Your task to perform on an android device: Add amazon basics triple a to the cart on target, then select checkout. Image 0: 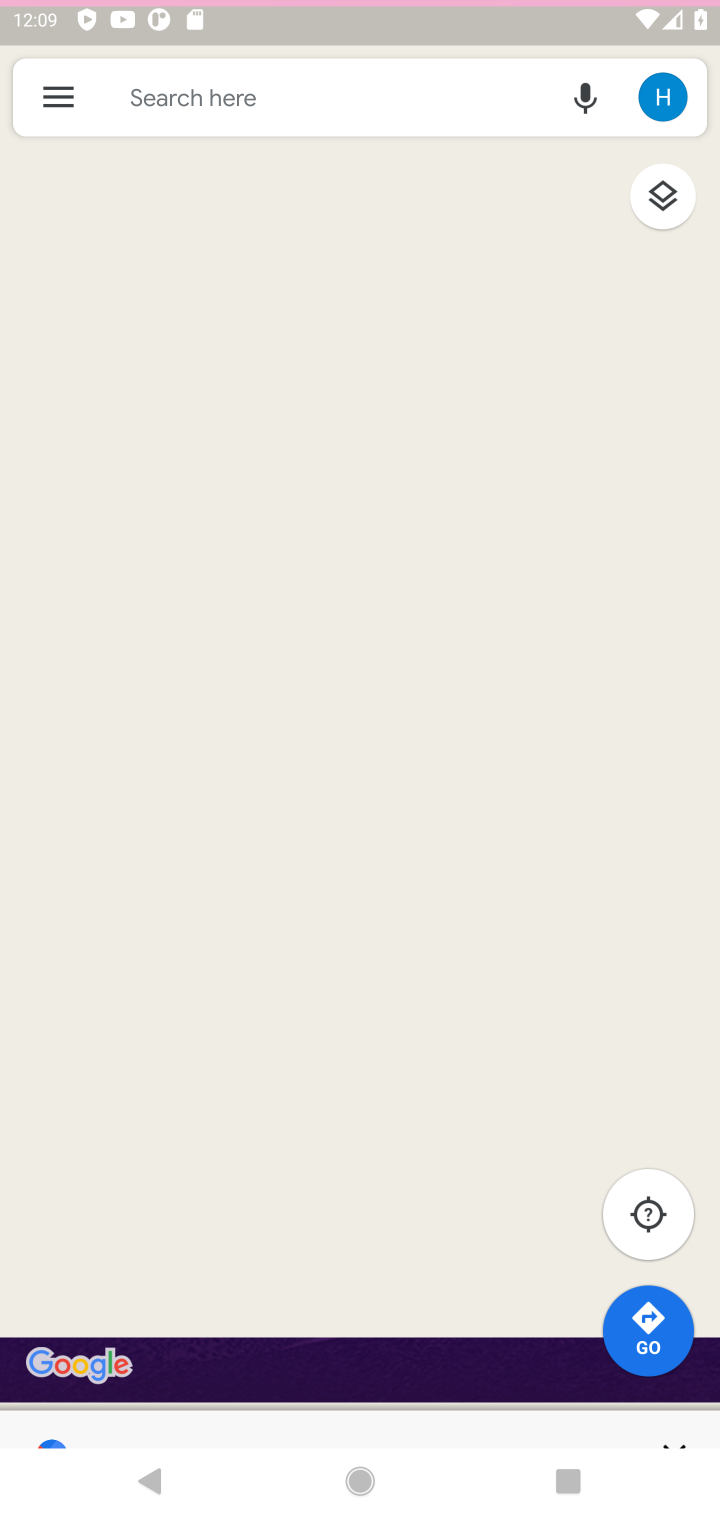
Step 0: click (509, 1220)
Your task to perform on an android device: Add amazon basics triple a to the cart on target, then select checkout. Image 1: 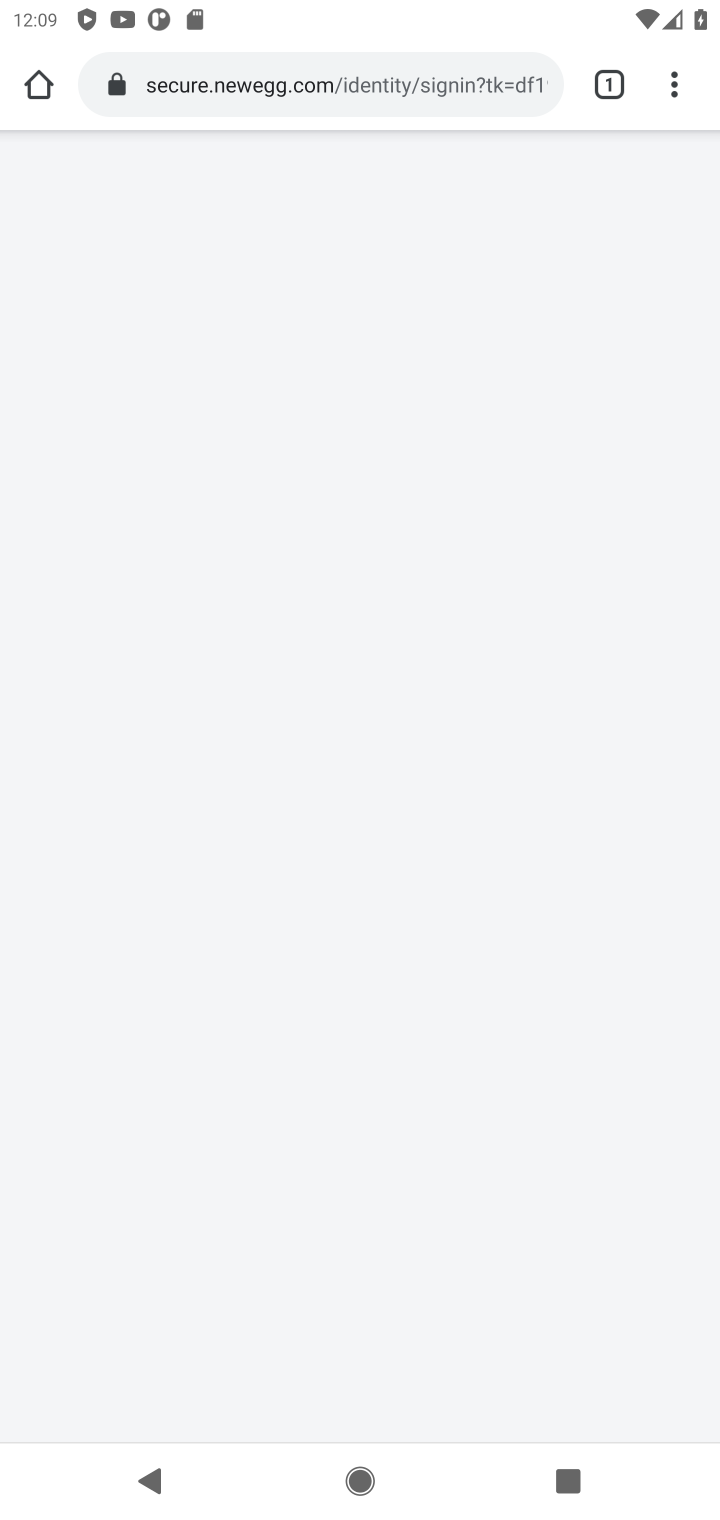
Step 1: click (507, 1218)
Your task to perform on an android device: Add amazon basics triple a to the cart on target, then select checkout. Image 2: 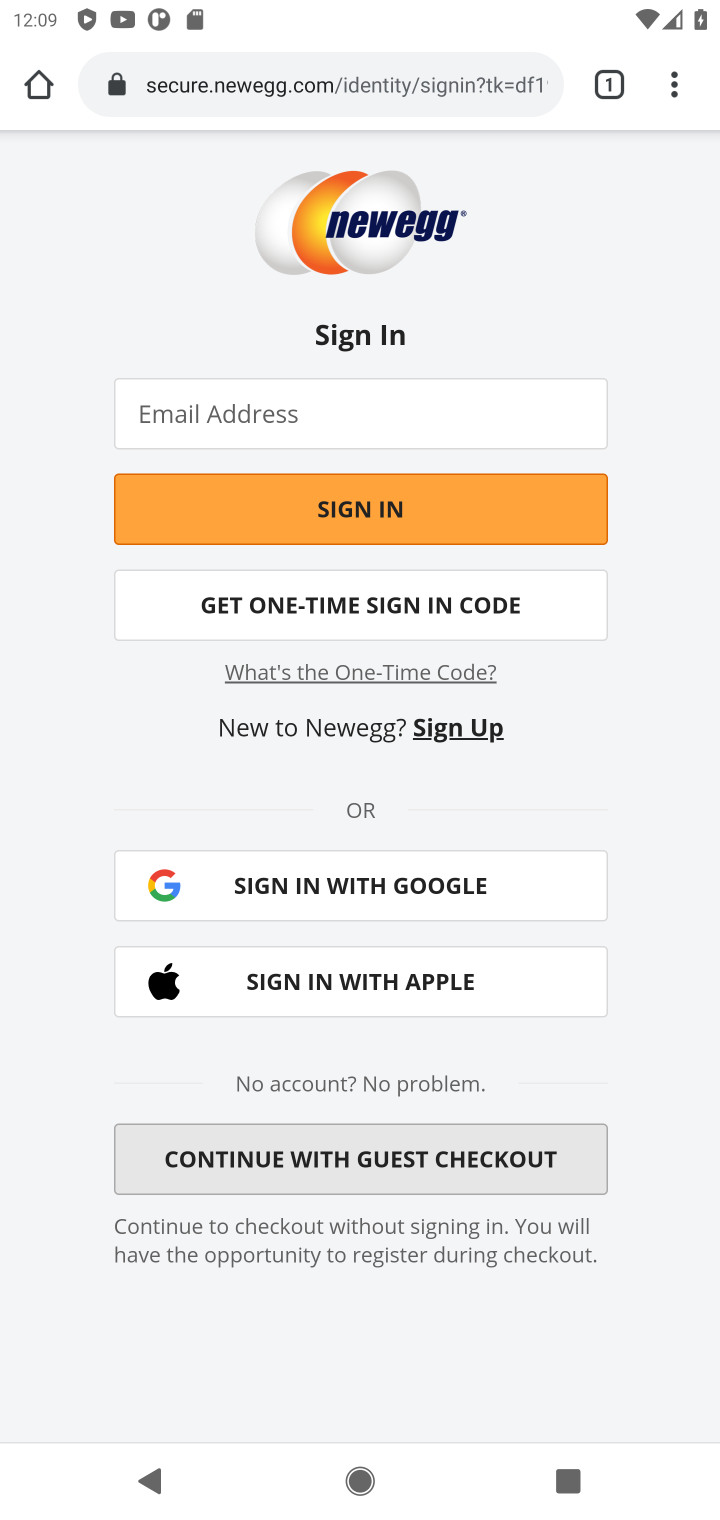
Step 2: click (332, 82)
Your task to perform on an android device: Add amazon basics triple a to the cart on target, then select checkout. Image 3: 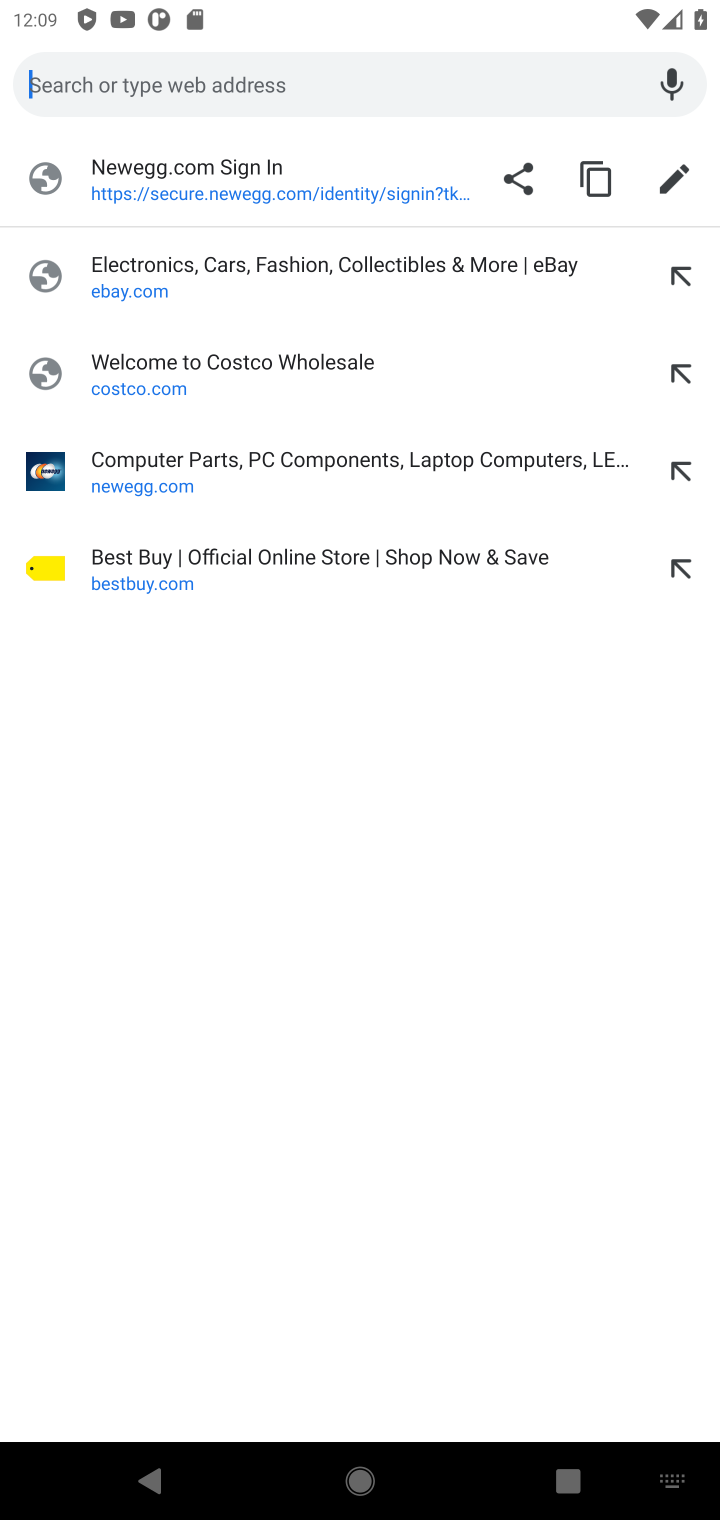
Step 3: type "target"
Your task to perform on an android device: Add amazon basics triple a to the cart on target, then select checkout. Image 4: 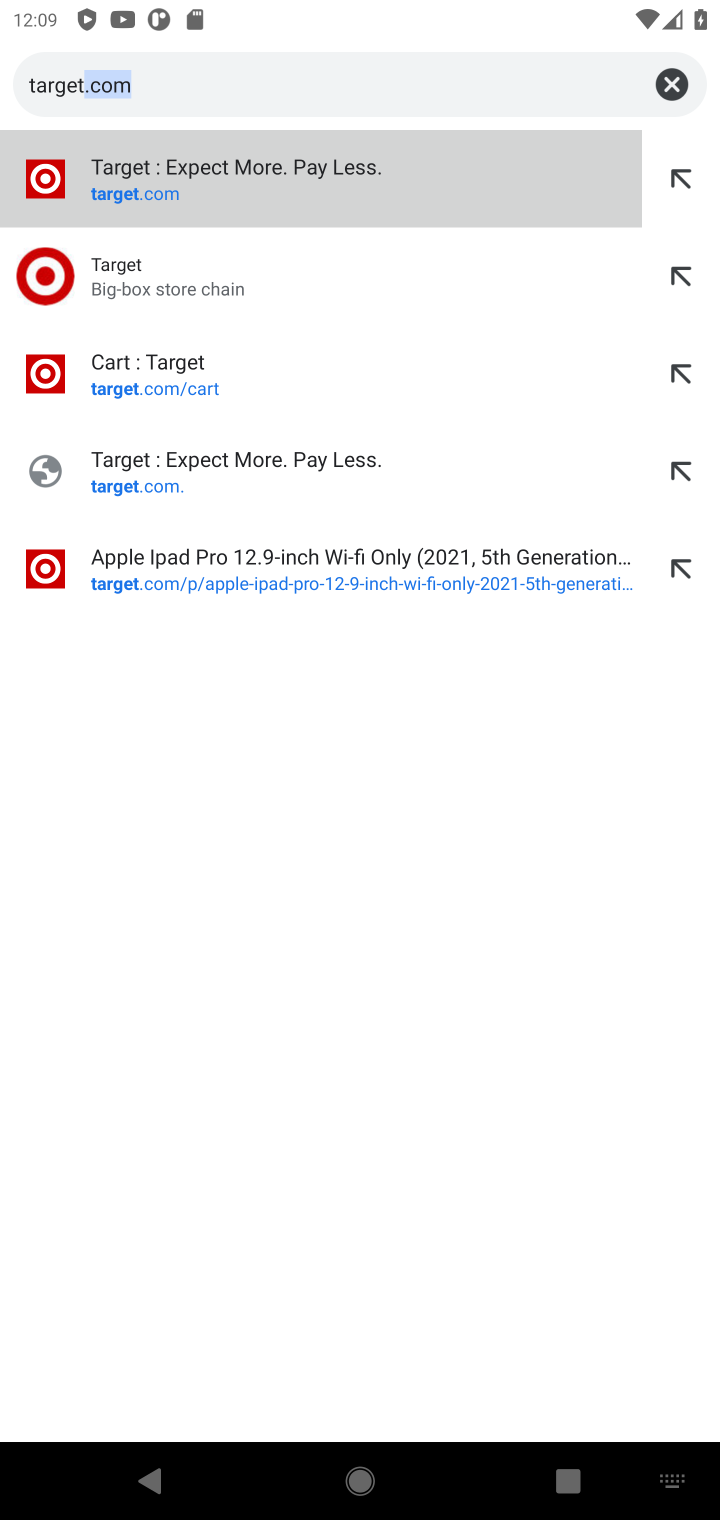
Step 4: click (205, 167)
Your task to perform on an android device: Add amazon basics triple a to the cart on target, then select checkout. Image 5: 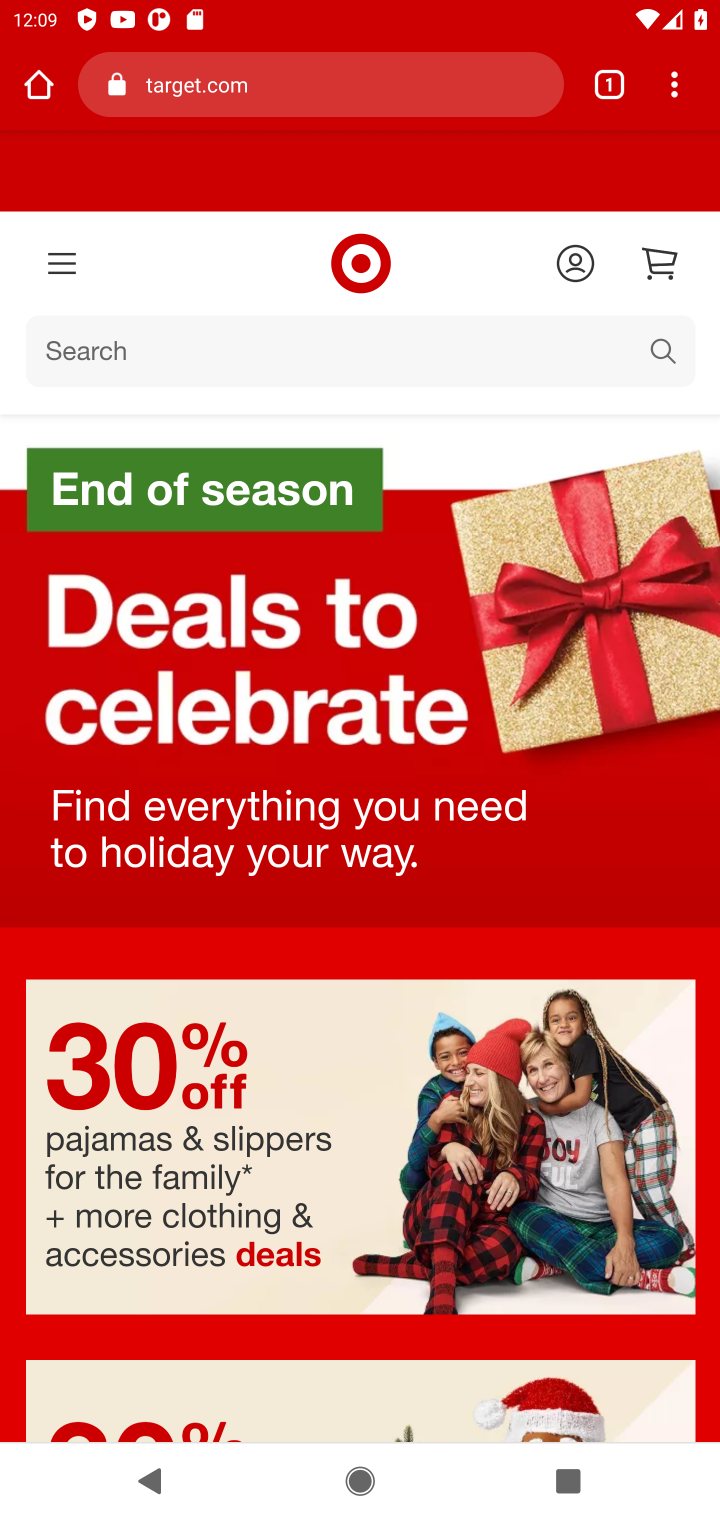
Step 5: click (405, 348)
Your task to perform on an android device: Add amazon basics triple a to the cart on target, then select checkout. Image 6: 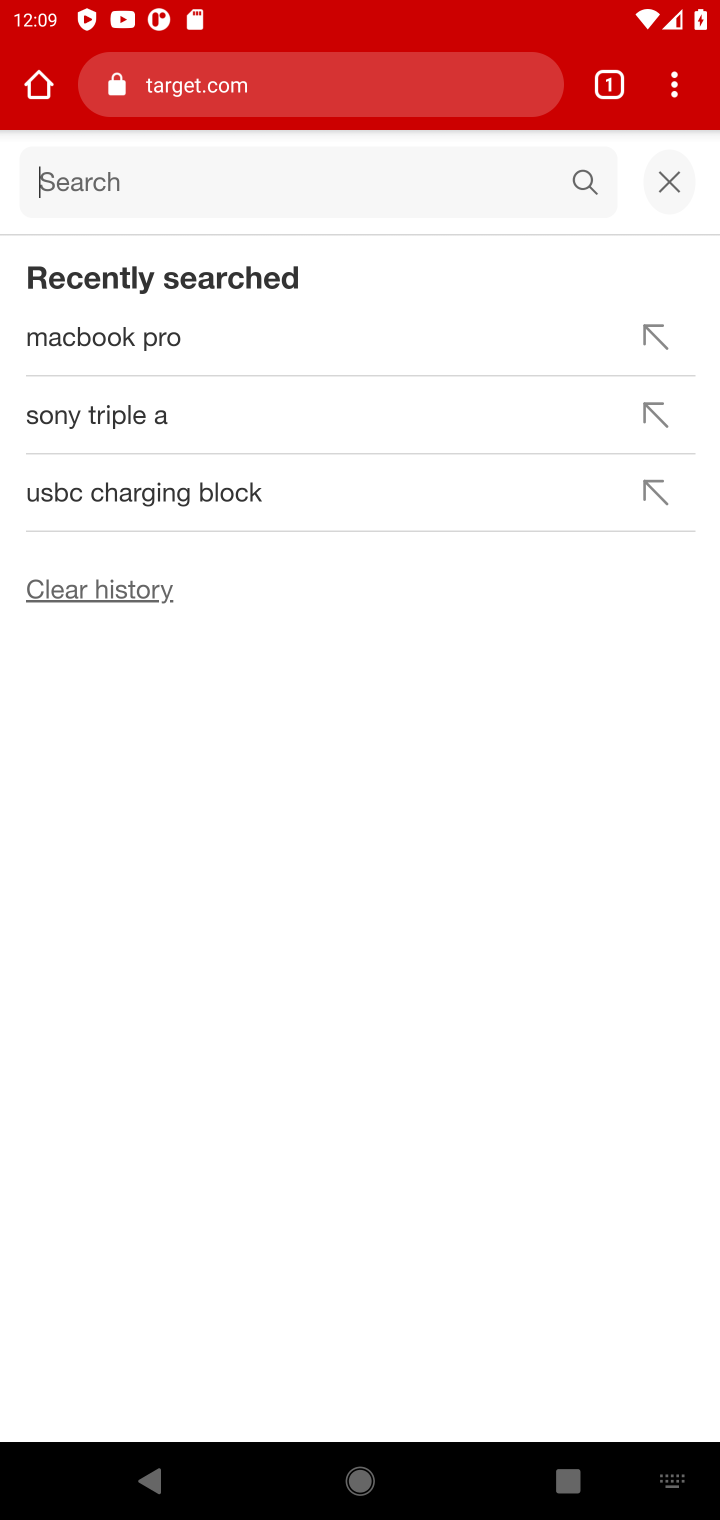
Step 6: click (310, 178)
Your task to perform on an android device: Add amazon basics triple a to the cart on target, then select checkout. Image 7: 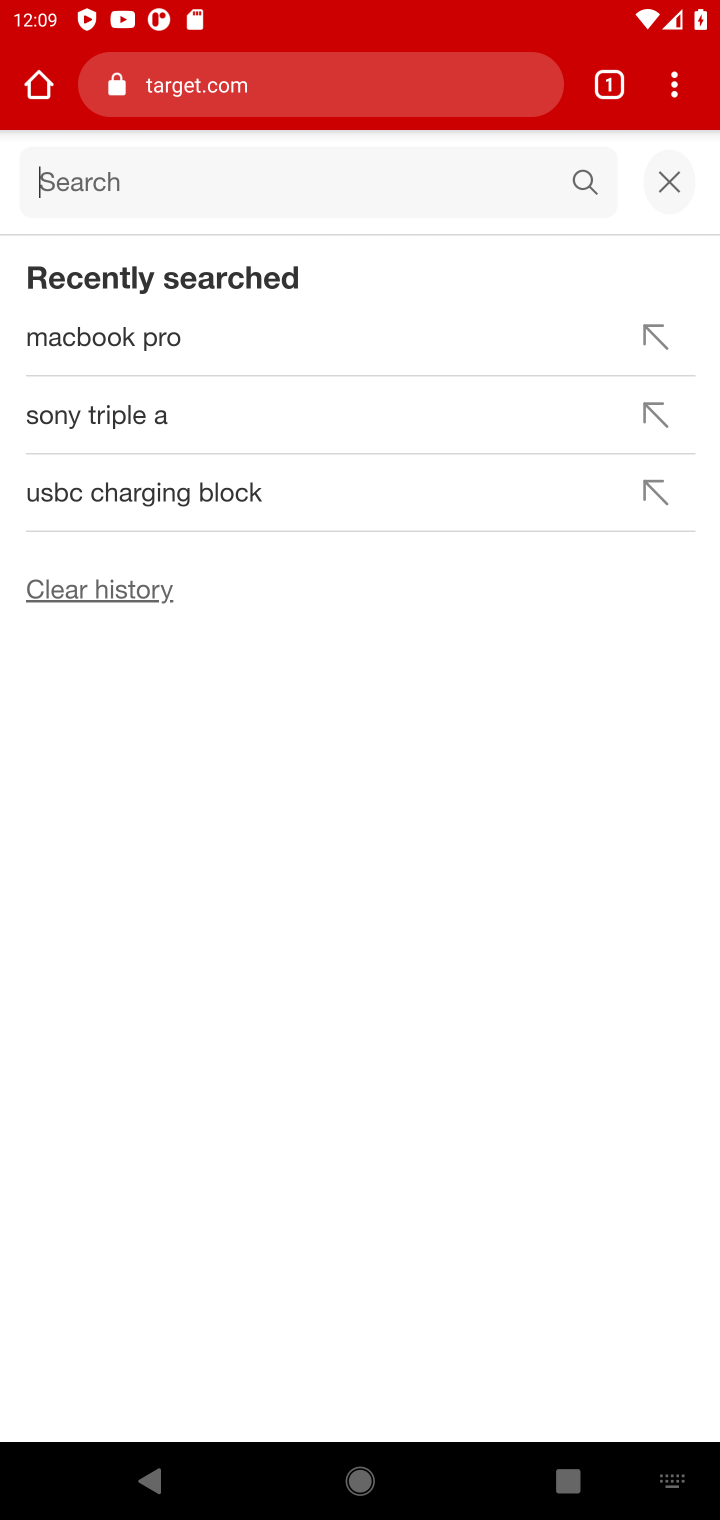
Step 7: type "amazon basics triple a"
Your task to perform on an android device: Add amazon basics triple a to the cart on target, then select checkout. Image 8: 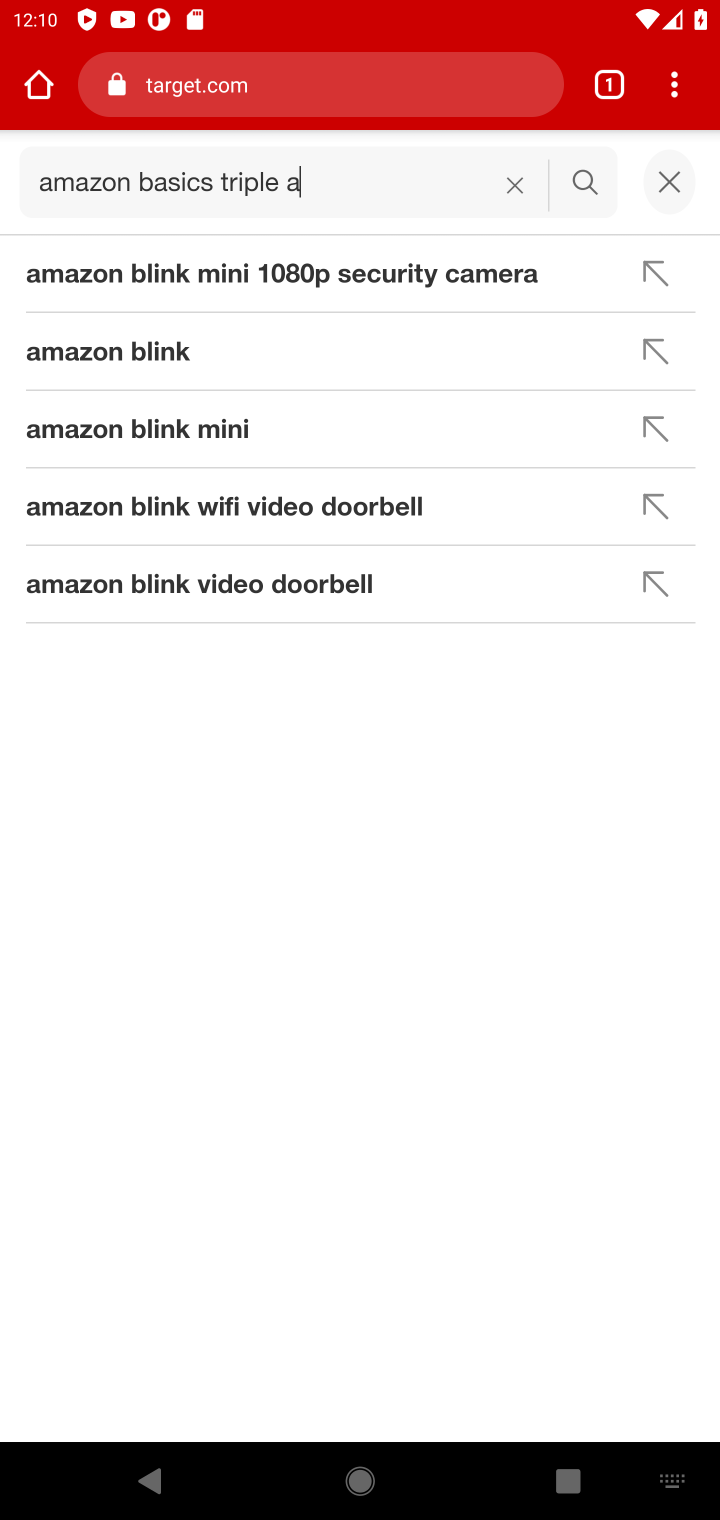
Step 8: click (156, 277)
Your task to perform on an android device: Add amazon basics triple a to the cart on target, then select checkout. Image 9: 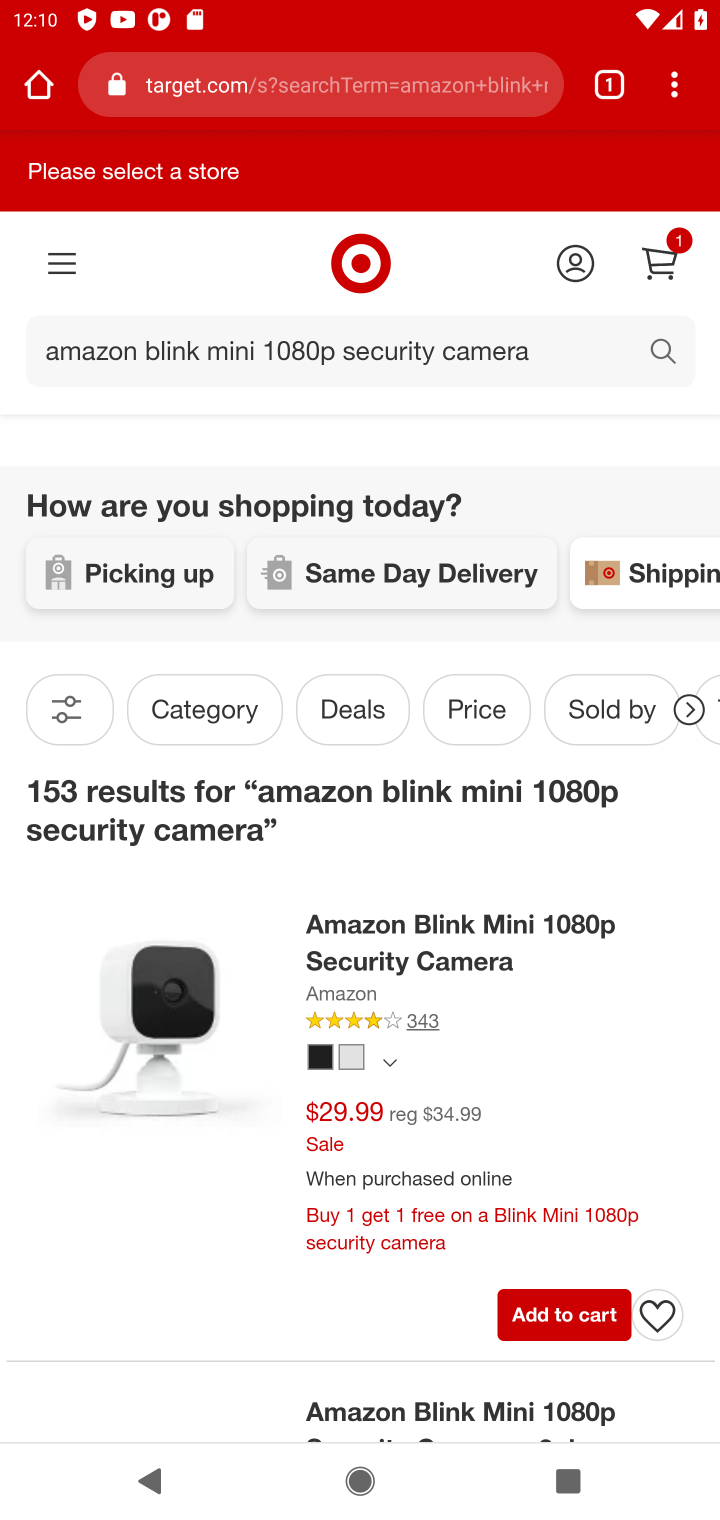
Step 9: click (570, 1316)
Your task to perform on an android device: Add amazon basics triple a to the cart on target, then select checkout. Image 10: 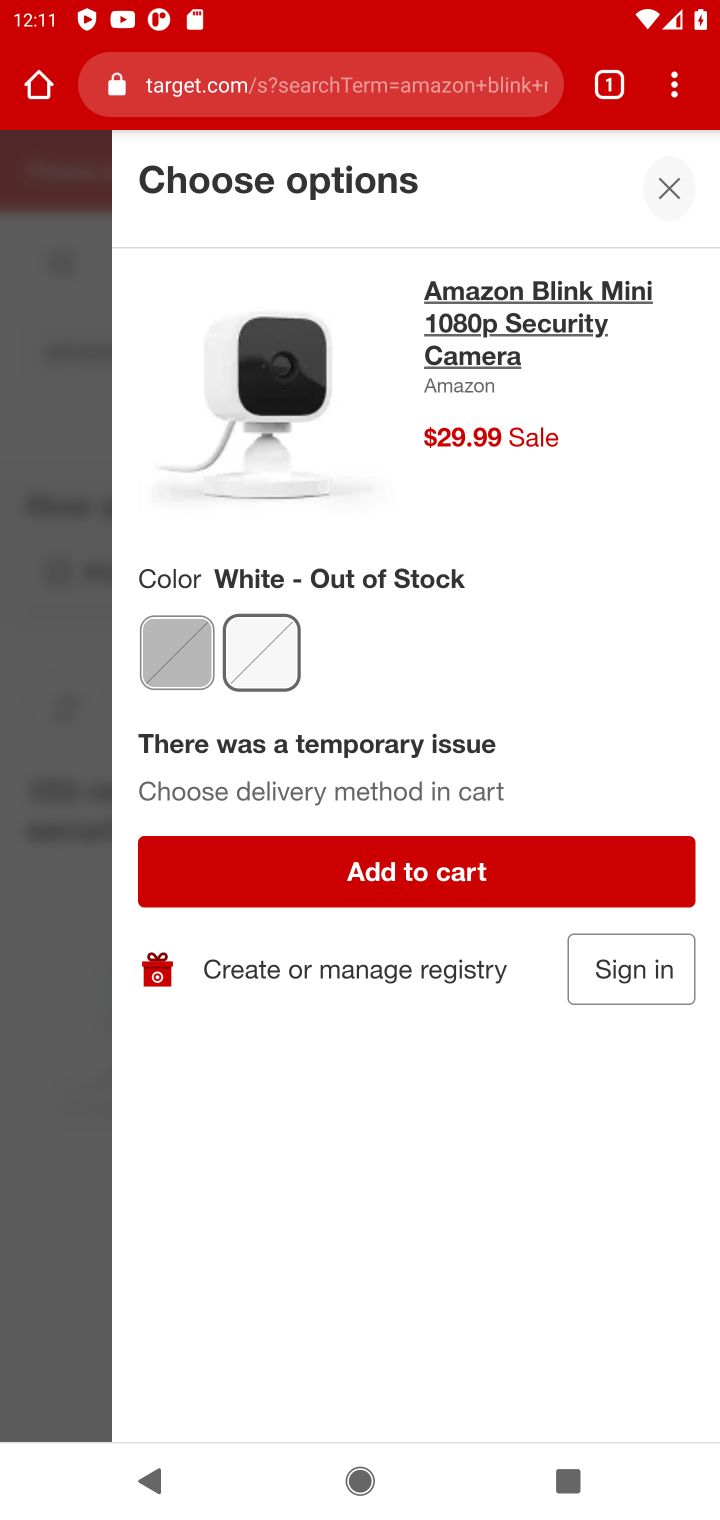
Step 10: click (467, 879)
Your task to perform on an android device: Add amazon basics triple a to the cart on target, then select checkout. Image 11: 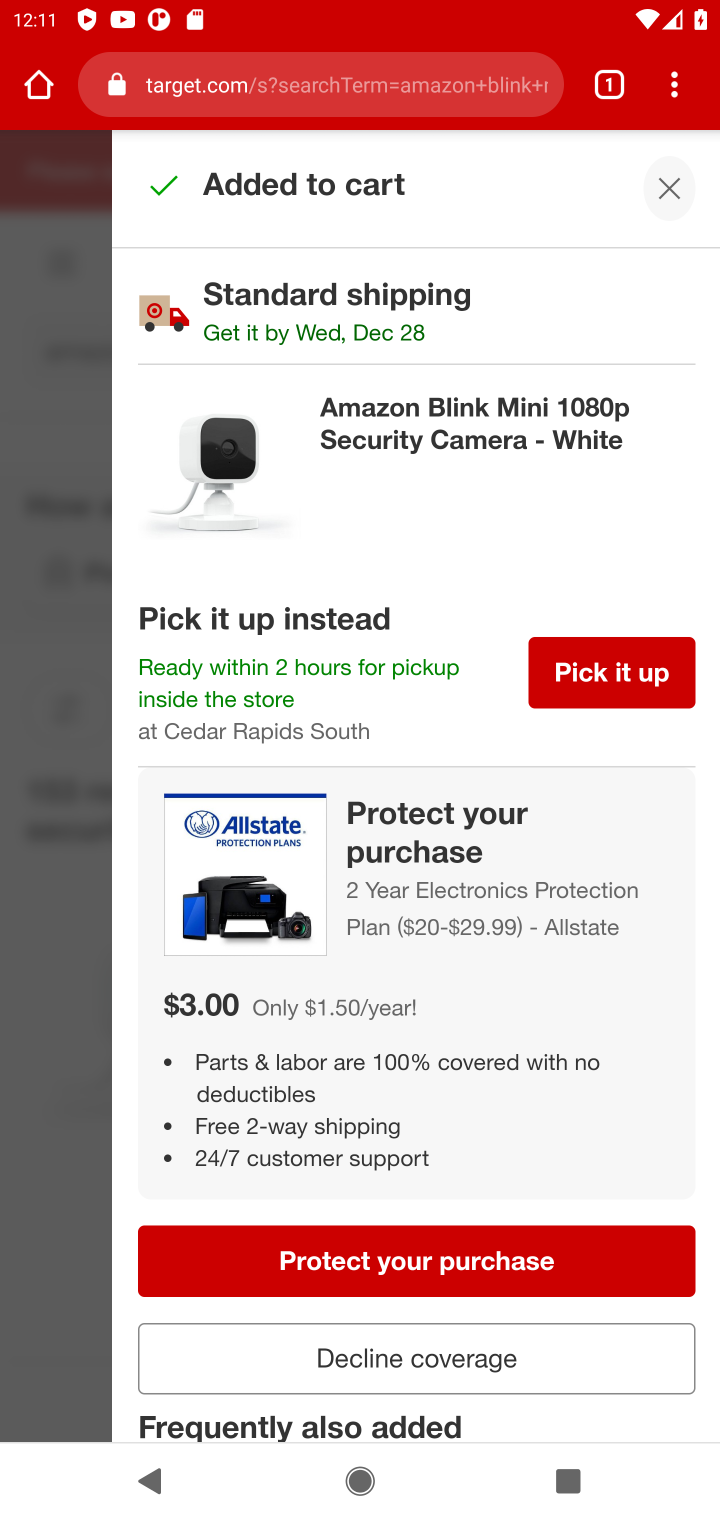
Step 11: click (376, 1359)
Your task to perform on an android device: Add amazon basics triple a to the cart on target, then select checkout. Image 12: 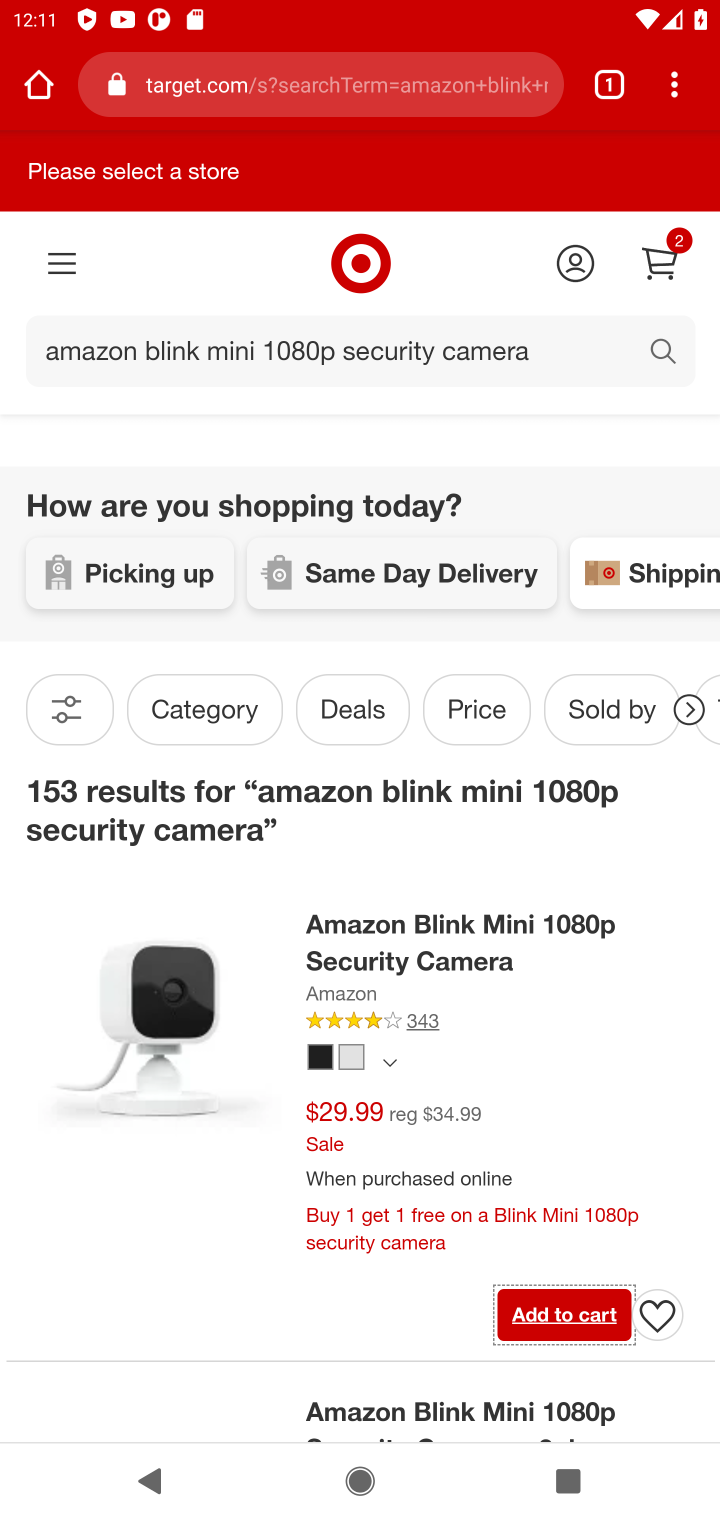
Step 12: click (665, 248)
Your task to perform on an android device: Add amazon basics triple a to the cart on target, then select checkout. Image 13: 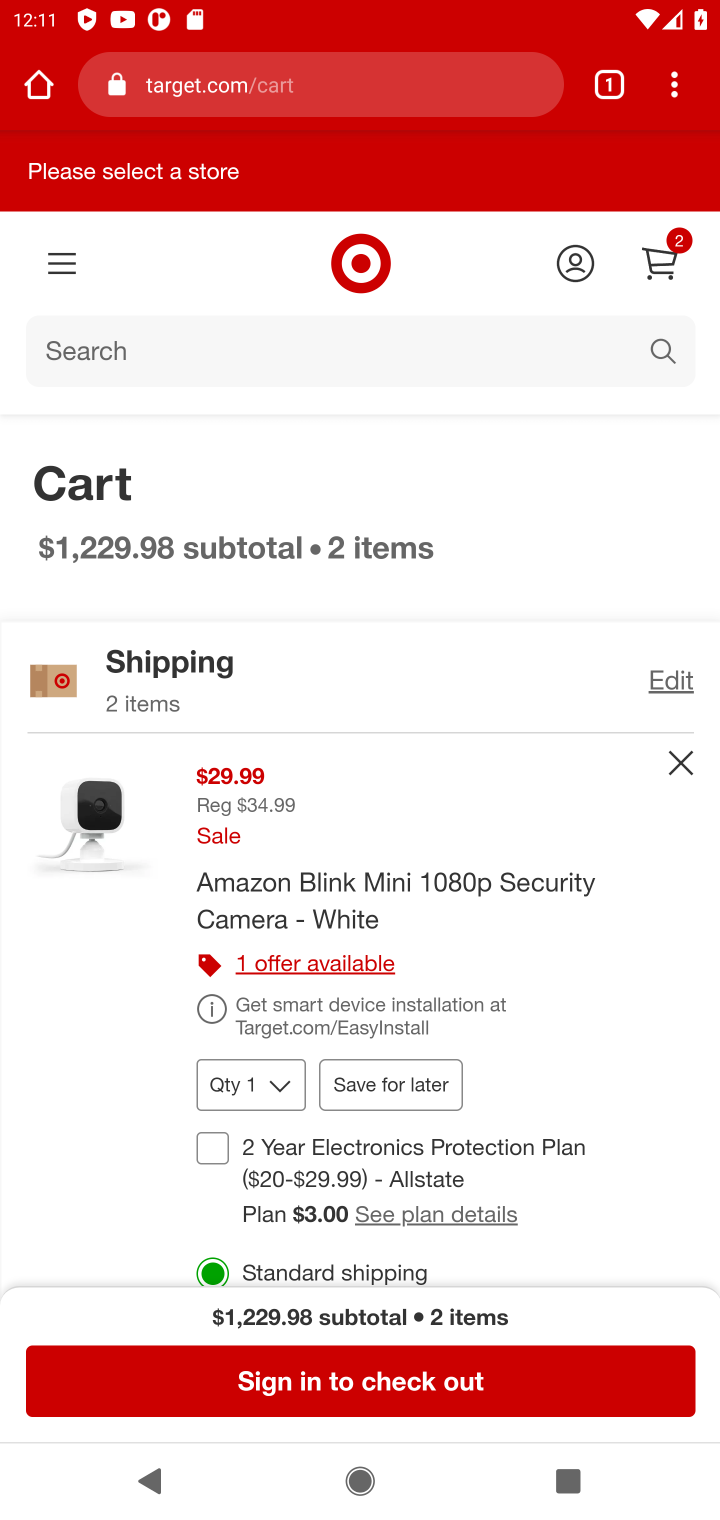
Step 13: click (352, 1383)
Your task to perform on an android device: Add amazon basics triple a to the cart on target, then select checkout. Image 14: 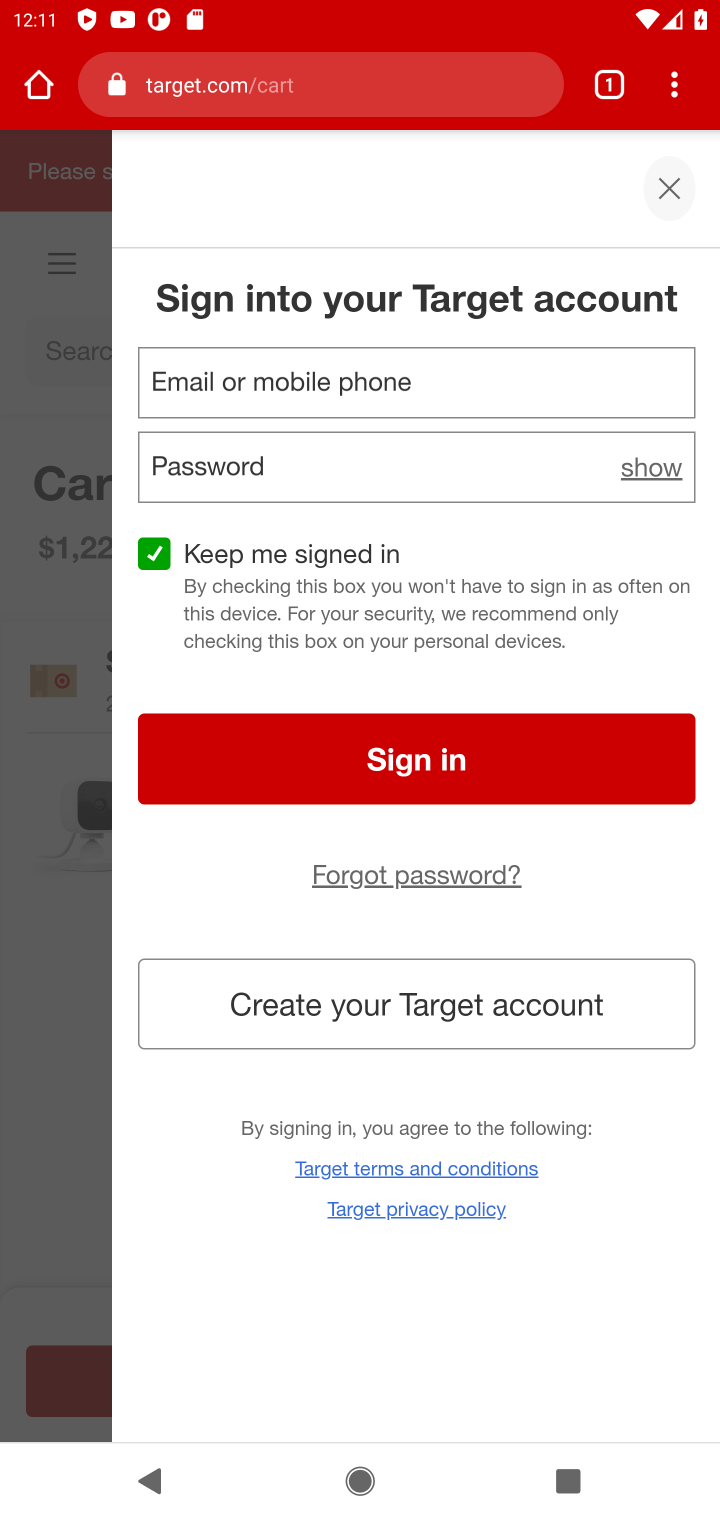
Step 14: task complete